Your task to perform on an android device: turn off notifications settings in the gmail app Image 0: 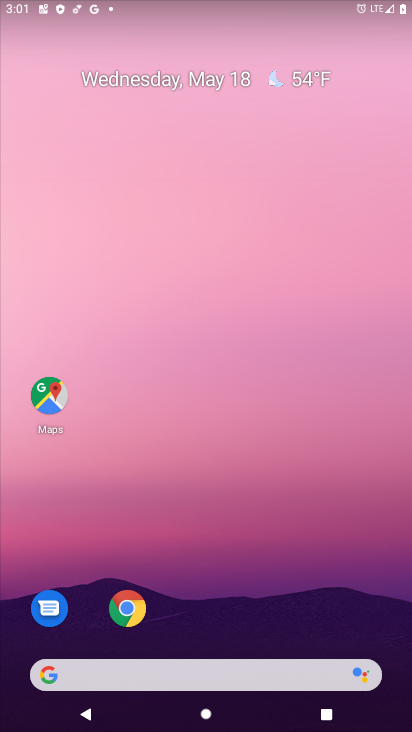
Step 0: drag from (343, 609) to (300, 19)
Your task to perform on an android device: turn off notifications settings in the gmail app Image 1: 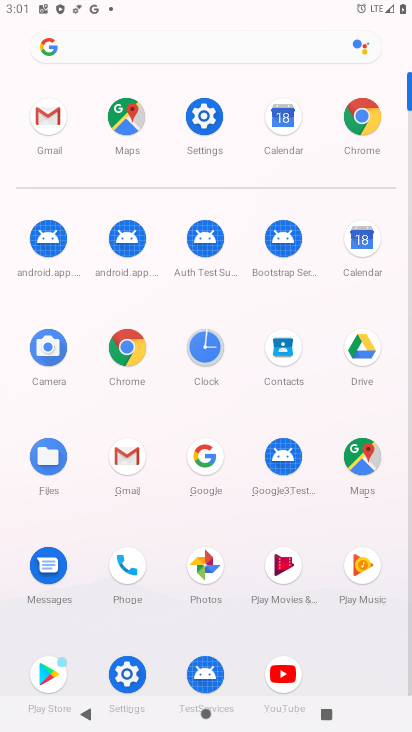
Step 1: click (117, 463)
Your task to perform on an android device: turn off notifications settings in the gmail app Image 2: 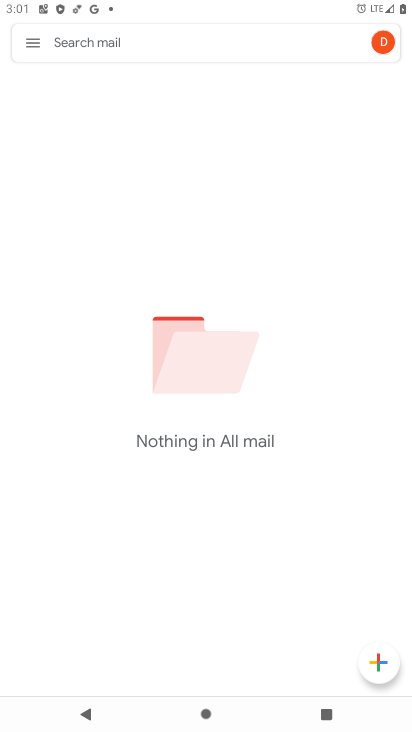
Step 2: click (27, 40)
Your task to perform on an android device: turn off notifications settings in the gmail app Image 3: 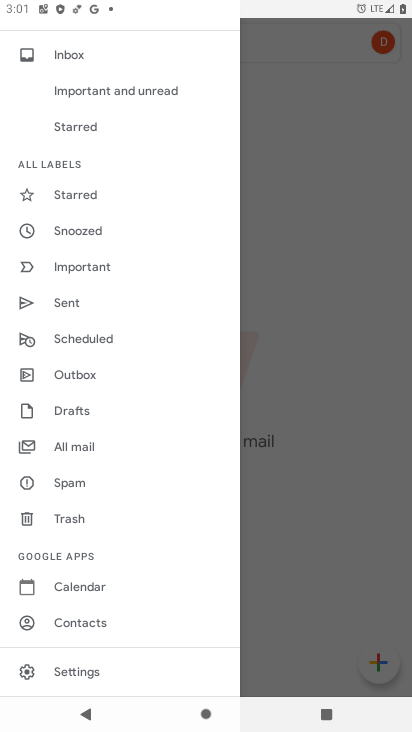
Step 3: click (88, 670)
Your task to perform on an android device: turn off notifications settings in the gmail app Image 4: 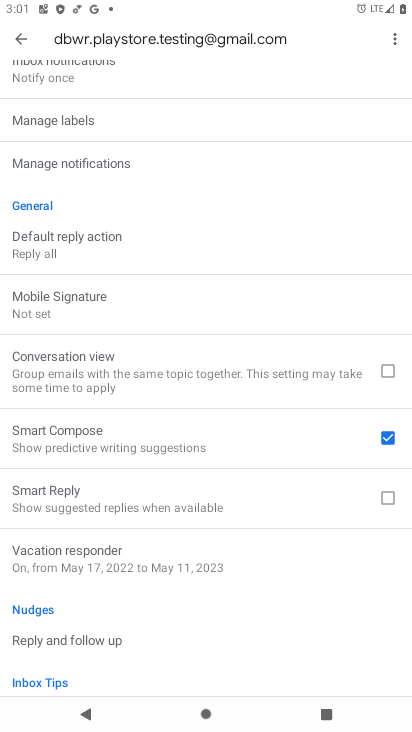
Step 4: click (81, 157)
Your task to perform on an android device: turn off notifications settings in the gmail app Image 5: 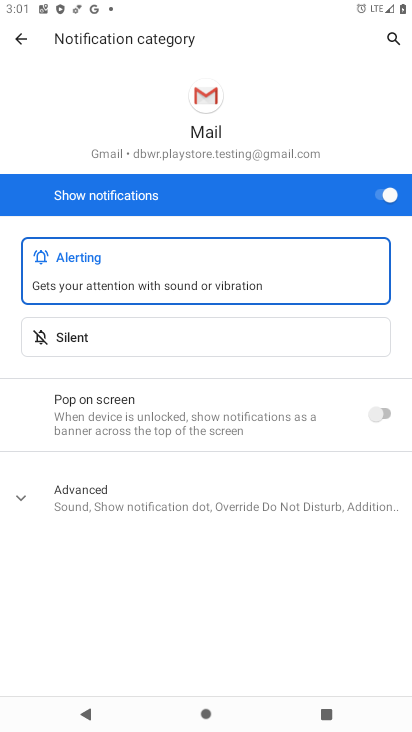
Step 5: click (394, 201)
Your task to perform on an android device: turn off notifications settings in the gmail app Image 6: 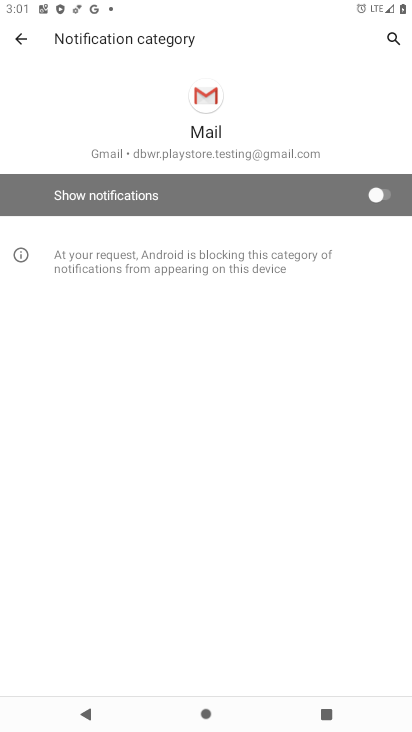
Step 6: task complete